Your task to perform on an android device: What's the weather going to be this weekend? Image 0: 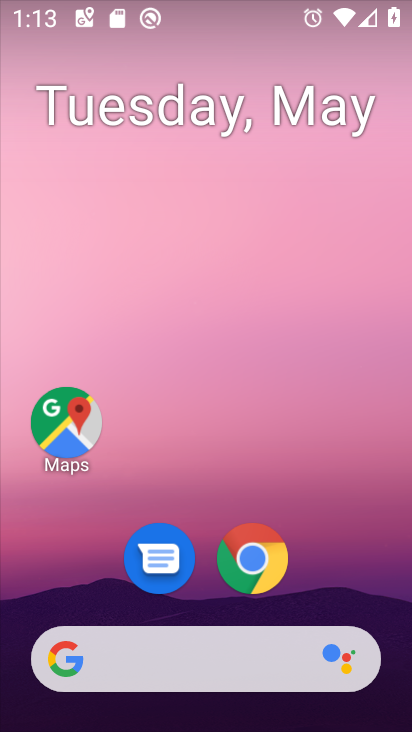
Step 0: drag from (389, 593) to (332, 229)
Your task to perform on an android device: What's the weather going to be this weekend? Image 1: 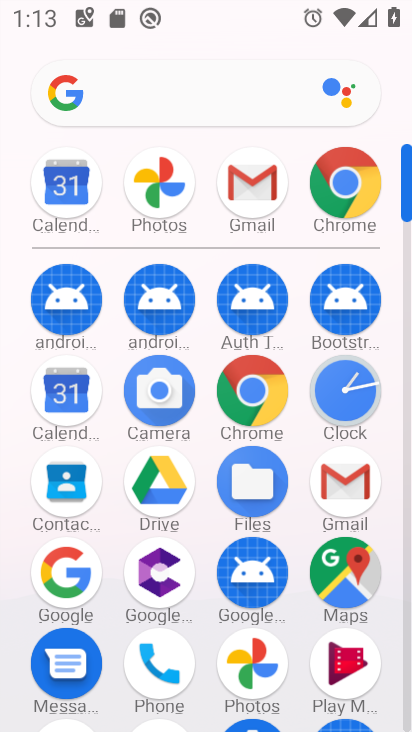
Step 1: click (356, 200)
Your task to perform on an android device: What's the weather going to be this weekend? Image 2: 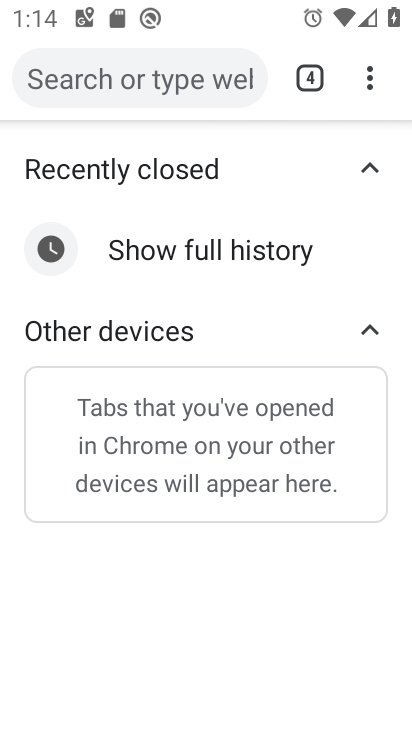
Step 2: click (215, 85)
Your task to perform on an android device: What's the weather going to be this weekend? Image 3: 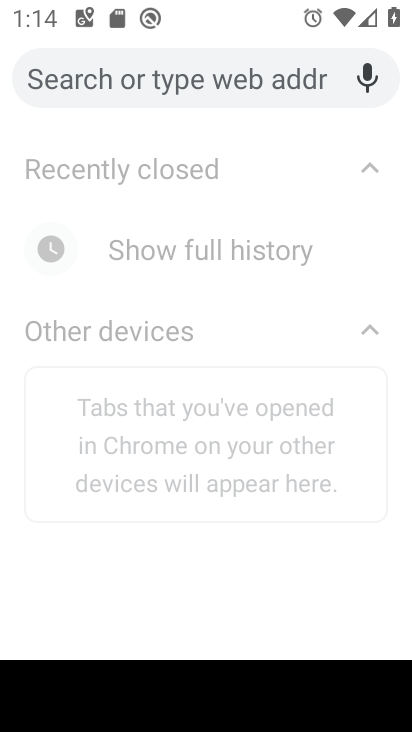
Step 3: type "What's the weather going to be this weekend?"
Your task to perform on an android device: What's the weather going to be this weekend? Image 4: 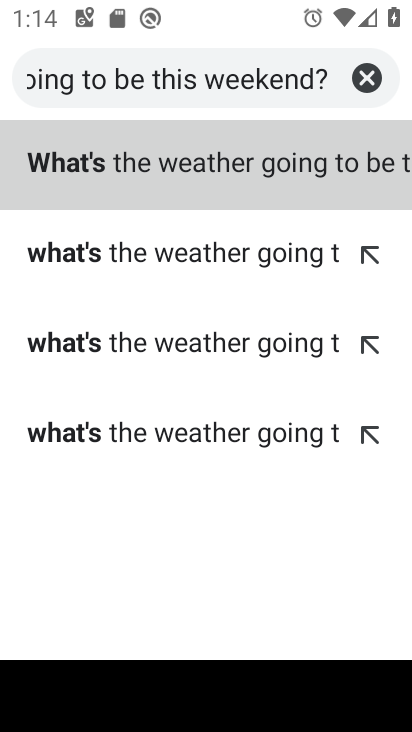
Step 4: click (244, 161)
Your task to perform on an android device: What's the weather going to be this weekend? Image 5: 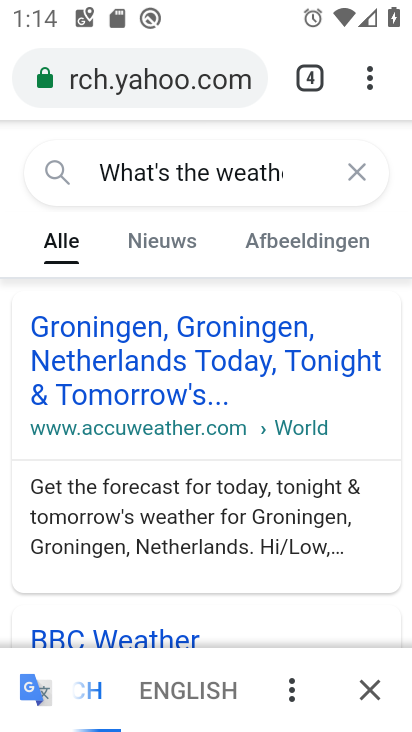
Step 5: click (208, 351)
Your task to perform on an android device: What's the weather going to be this weekend? Image 6: 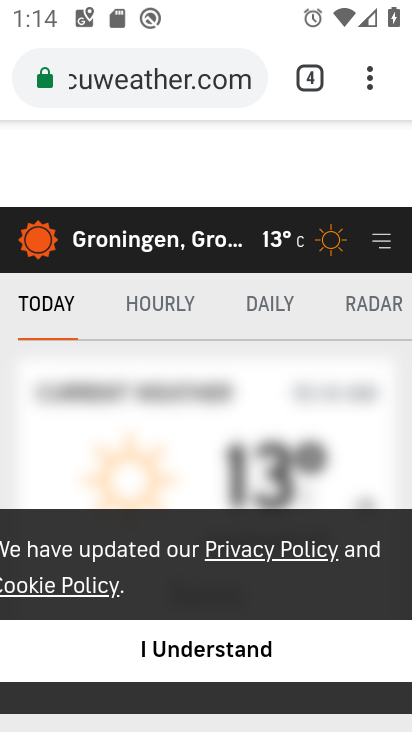
Step 6: task complete